Your task to perform on an android device: Search for sushi restaurants on Maps Image 0: 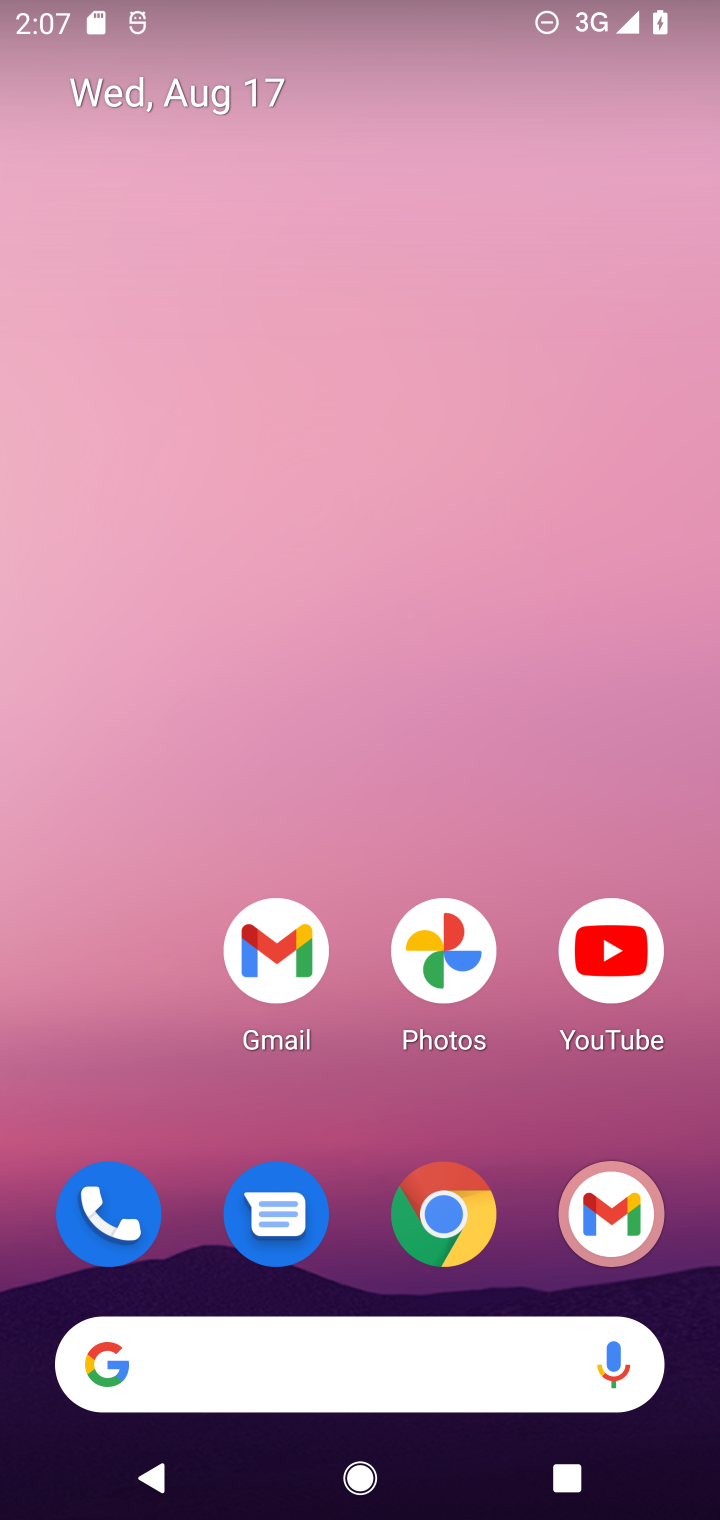
Step 0: drag from (368, 1257) to (285, 386)
Your task to perform on an android device: Search for sushi restaurants on Maps Image 1: 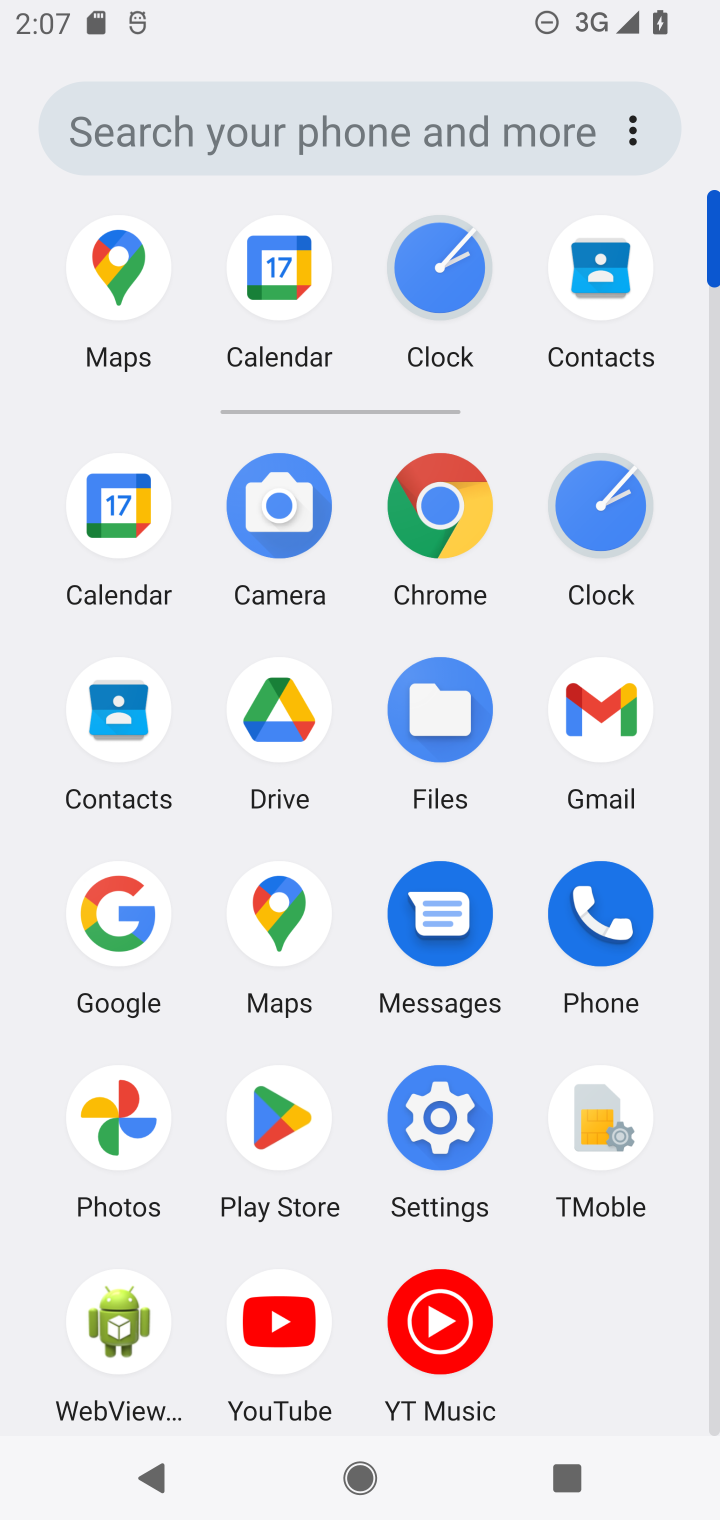
Step 1: click (118, 255)
Your task to perform on an android device: Search for sushi restaurants on Maps Image 2: 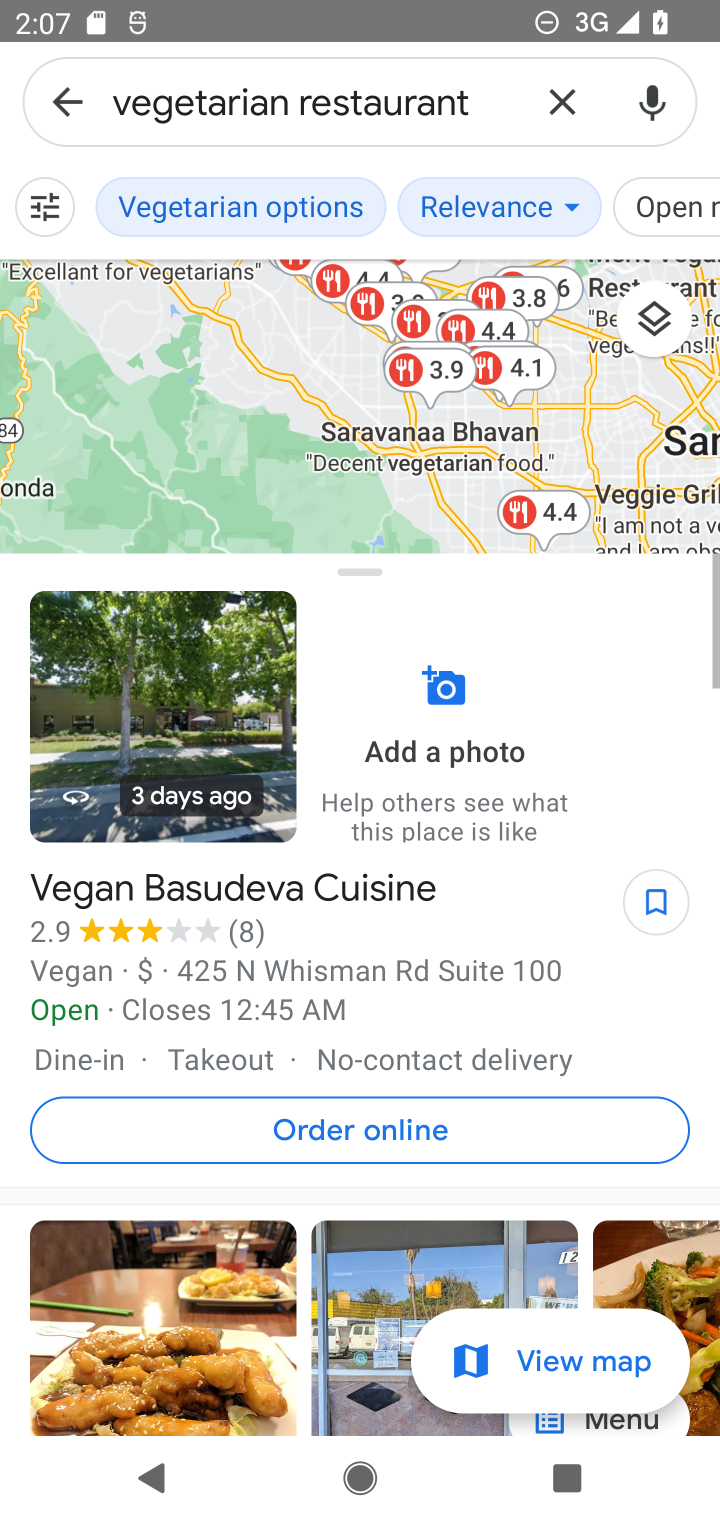
Step 2: click (567, 93)
Your task to perform on an android device: Search for sushi restaurants on Maps Image 3: 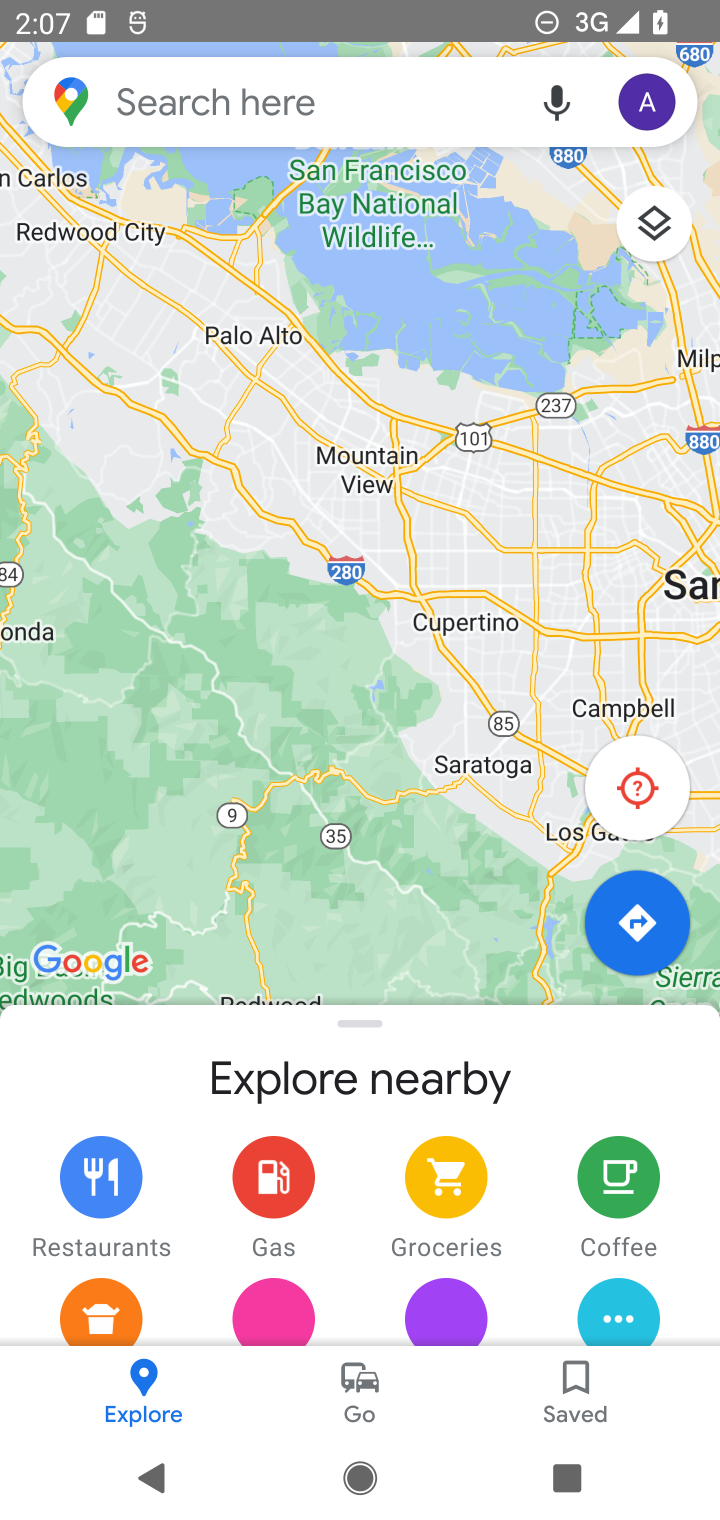
Step 3: click (366, 106)
Your task to perform on an android device: Search for sushi restaurants on Maps Image 4: 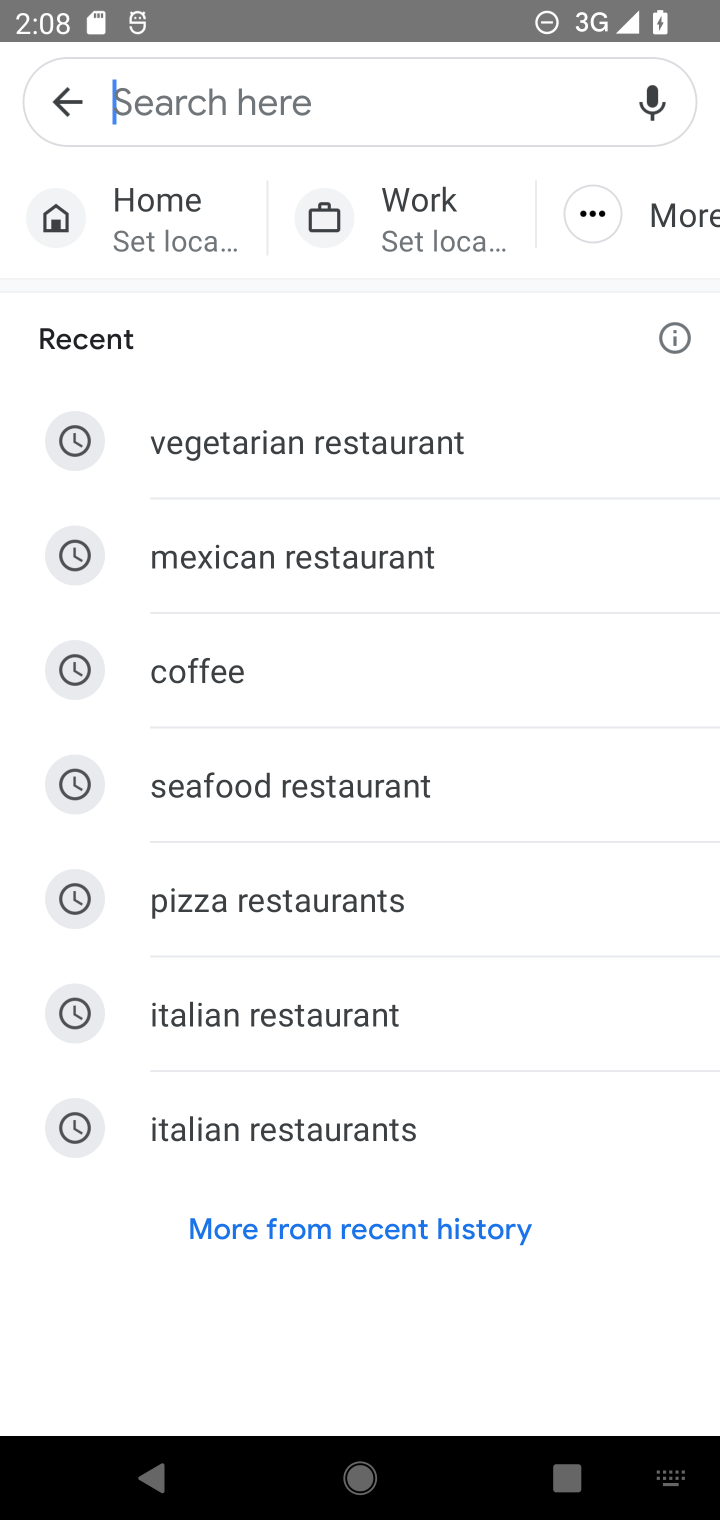
Step 4: type "sushi restaurants"
Your task to perform on an android device: Search for sushi restaurants on Maps Image 5: 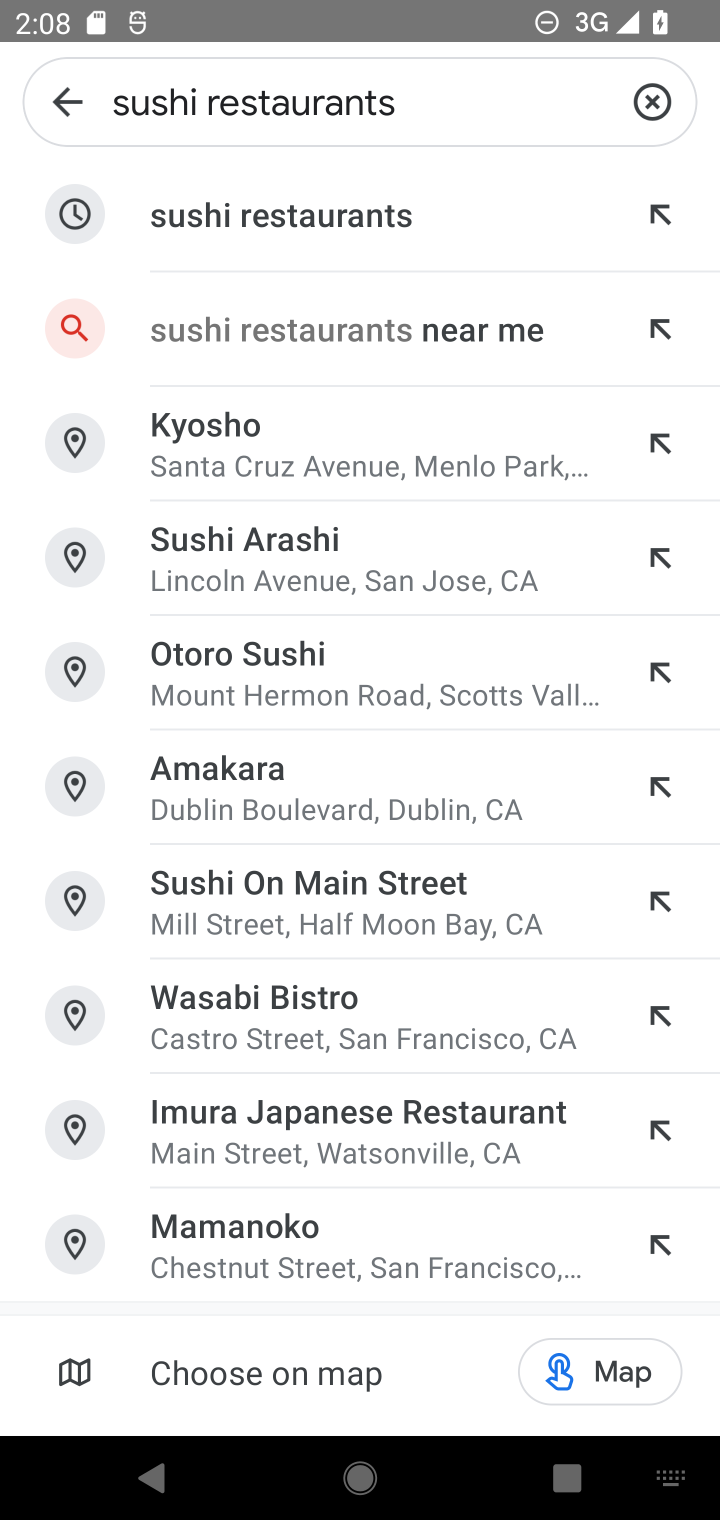
Step 5: click (272, 204)
Your task to perform on an android device: Search for sushi restaurants on Maps Image 6: 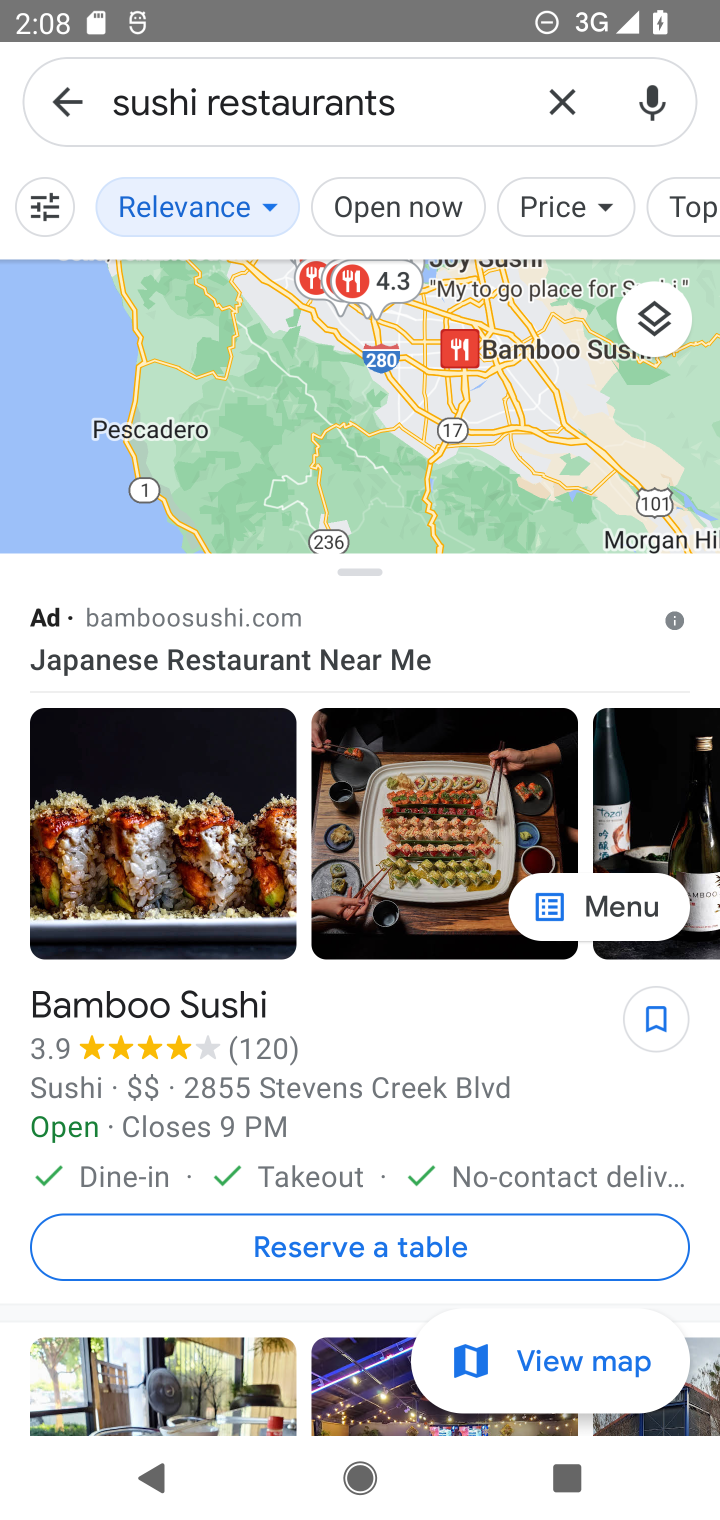
Step 6: task complete